Your task to perform on an android device: Go to settings Image 0: 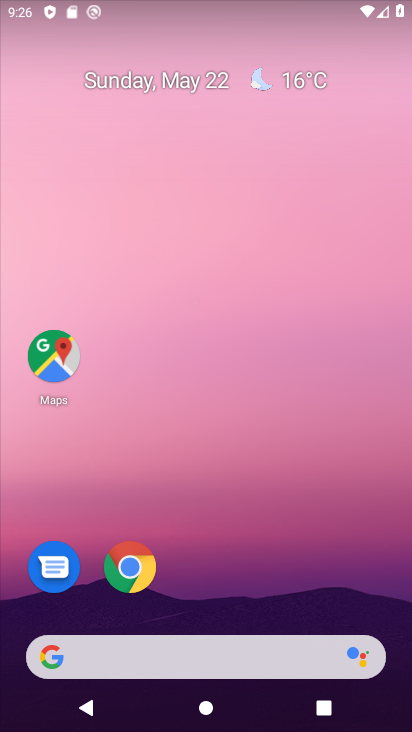
Step 0: drag from (178, 576) to (82, 85)
Your task to perform on an android device: Go to settings Image 1: 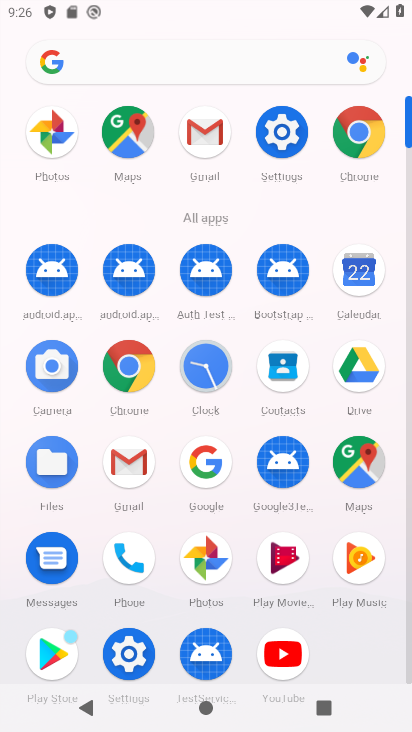
Step 1: click (125, 663)
Your task to perform on an android device: Go to settings Image 2: 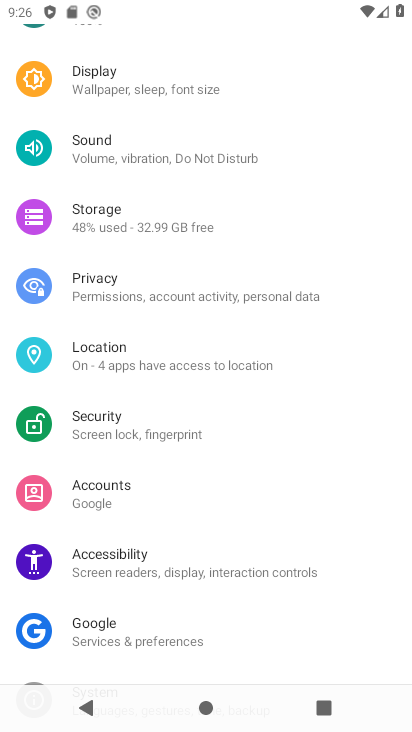
Step 2: task complete